Your task to perform on an android device: Open wifi settings Image 0: 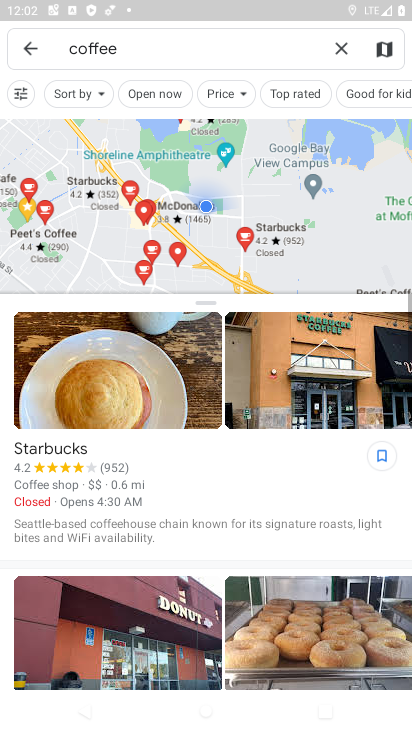
Step 0: press home button
Your task to perform on an android device: Open wifi settings Image 1: 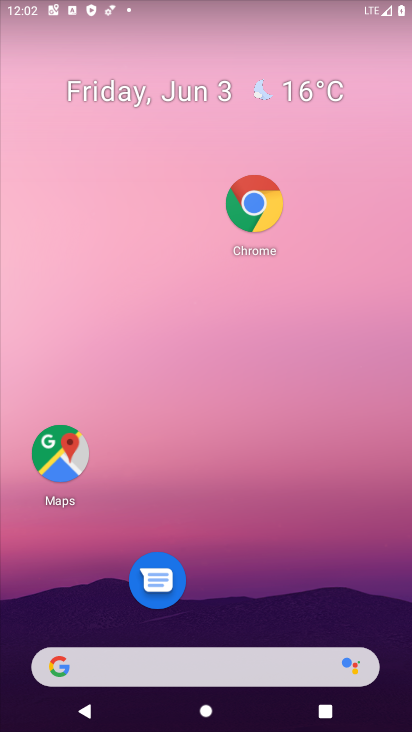
Step 1: drag from (256, 502) to (263, 356)
Your task to perform on an android device: Open wifi settings Image 2: 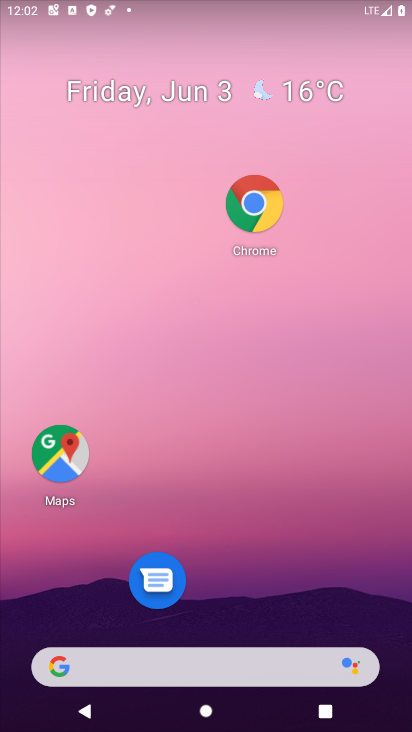
Step 2: drag from (172, 541) to (235, 181)
Your task to perform on an android device: Open wifi settings Image 3: 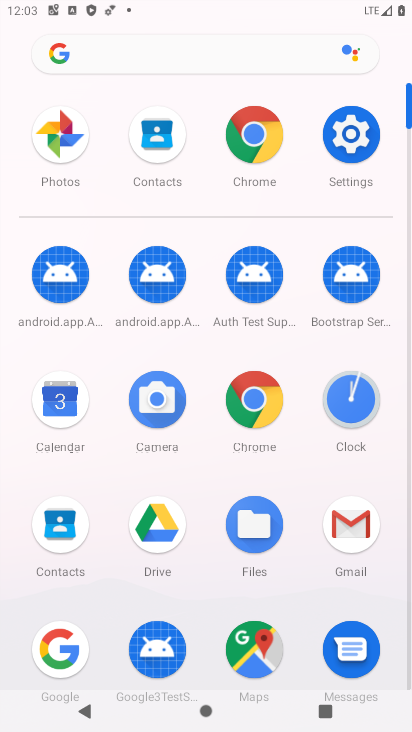
Step 3: click (354, 158)
Your task to perform on an android device: Open wifi settings Image 4: 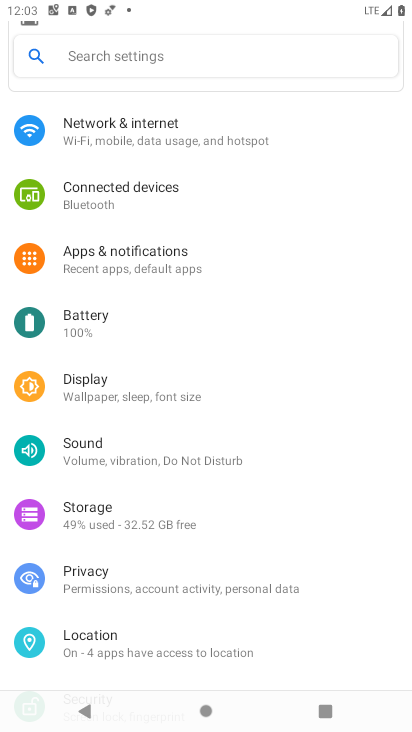
Step 4: click (198, 118)
Your task to perform on an android device: Open wifi settings Image 5: 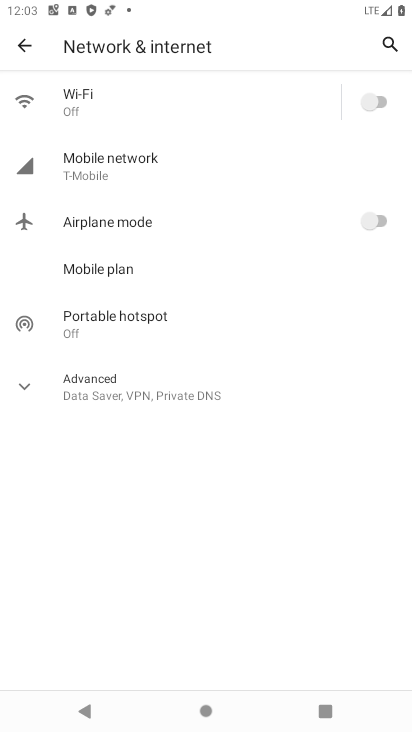
Step 5: click (154, 122)
Your task to perform on an android device: Open wifi settings Image 6: 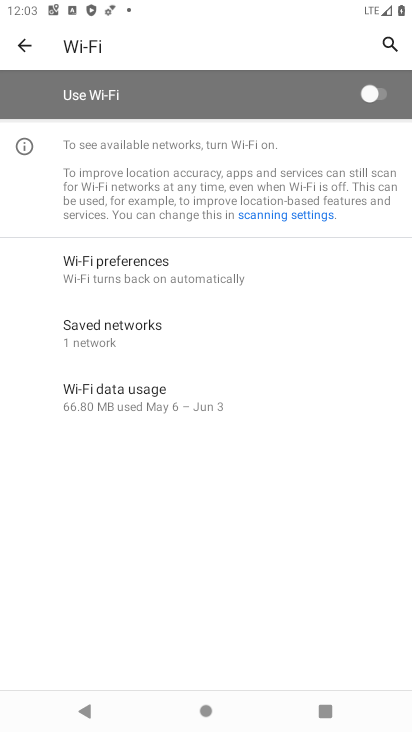
Step 6: task complete